Your task to perform on an android device: turn pop-ups on in chrome Image 0: 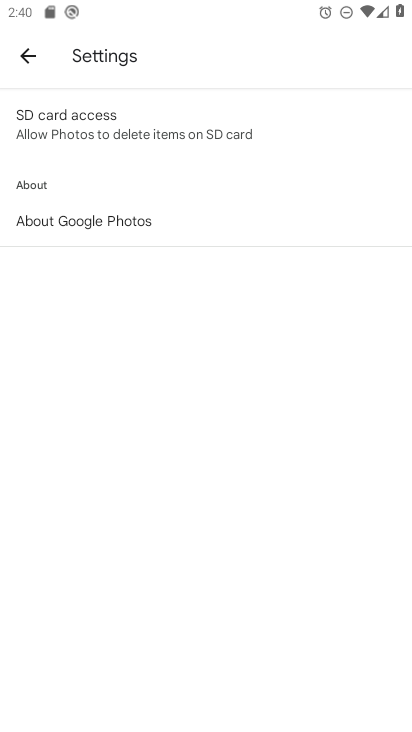
Step 0: press home button
Your task to perform on an android device: turn pop-ups on in chrome Image 1: 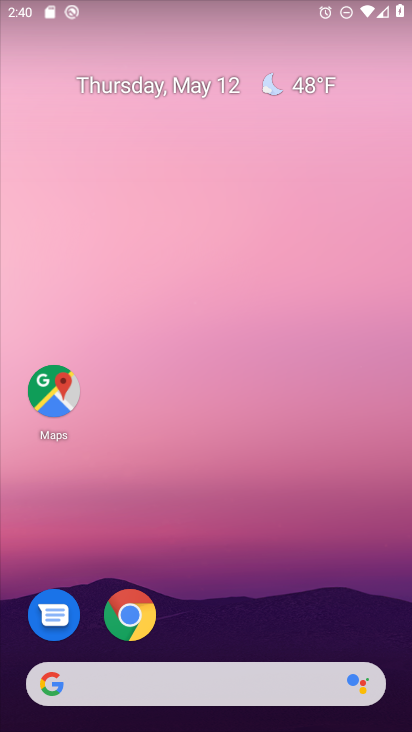
Step 1: drag from (271, 726) to (289, 76)
Your task to perform on an android device: turn pop-ups on in chrome Image 2: 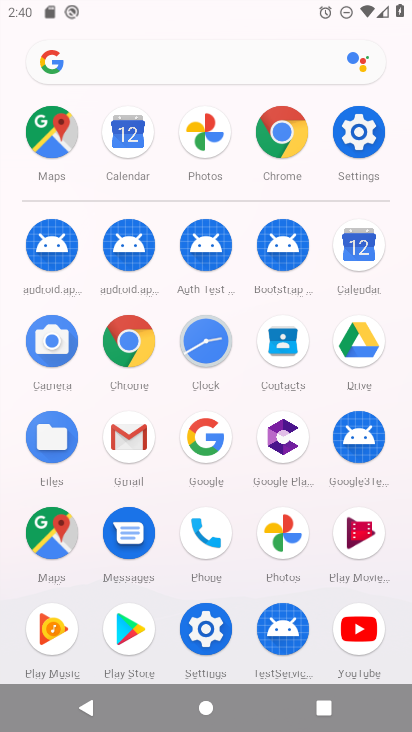
Step 2: click (127, 355)
Your task to perform on an android device: turn pop-ups on in chrome Image 3: 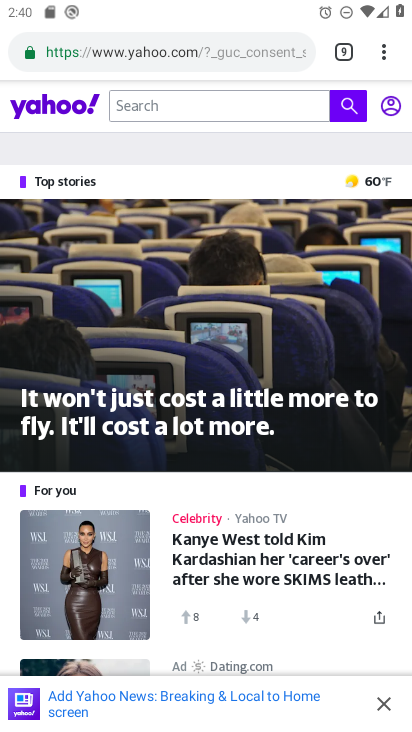
Step 3: drag from (382, 60) to (208, 633)
Your task to perform on an android device: turn pop-ups on in chrome Image 4: 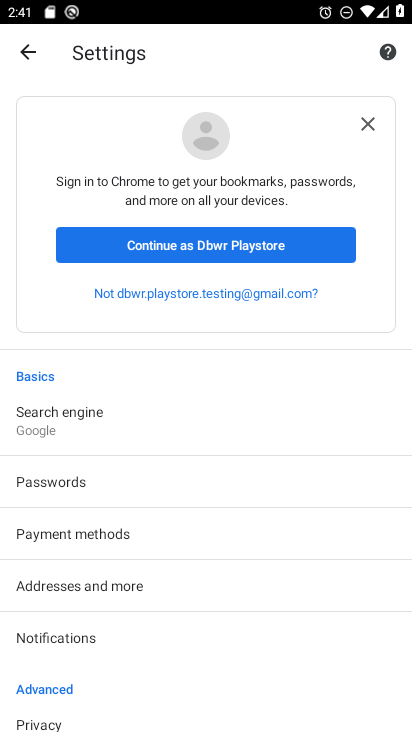
Step 4: drag from (169, 646) to (198, 198)
Your task to perform on an android device: turn pop-ups on in chrome Image 5: 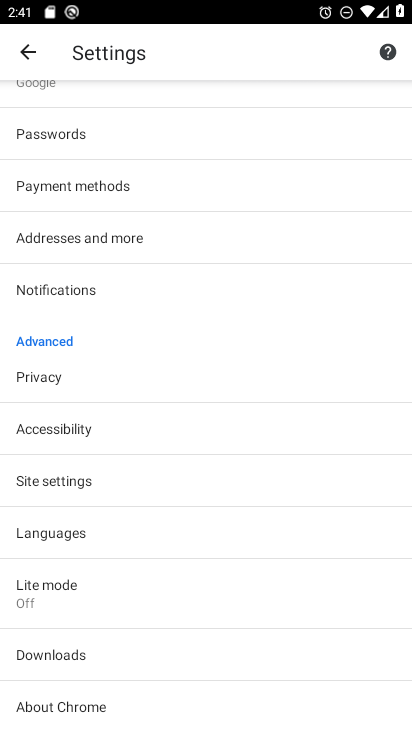
Step 5: click (29, 479)
Your task to perform on an android device: turn pop-ups on in chrome Image 6: 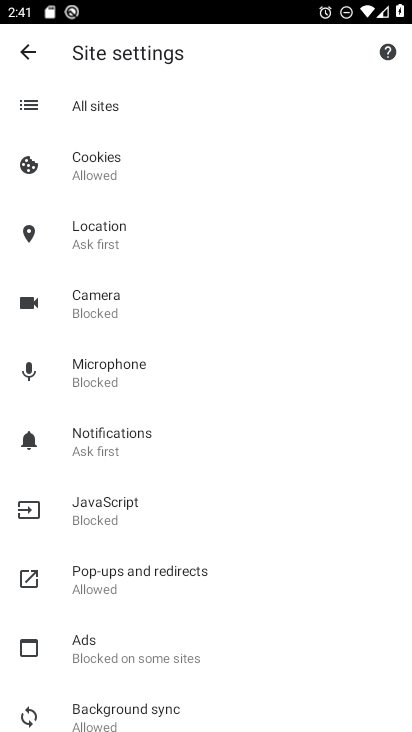
Step 6: click (146, 578)
Your task to perform on an android device: turn pop-ups on in chrome Image 7: 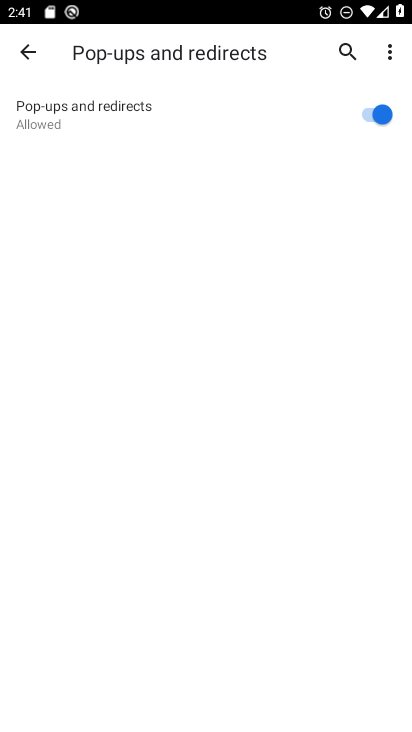
Step 7: task complete